Your task to perform on an android device: toggle priority inbox in the gmail app Image 0: 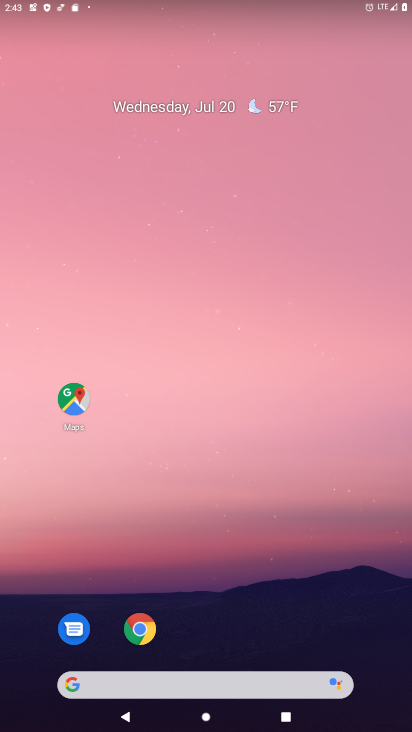
Step 0: drag from (372, 644) to (317, 30)
Your task to perform on an android device: toggle priority inbox in the gmail app Image 1: 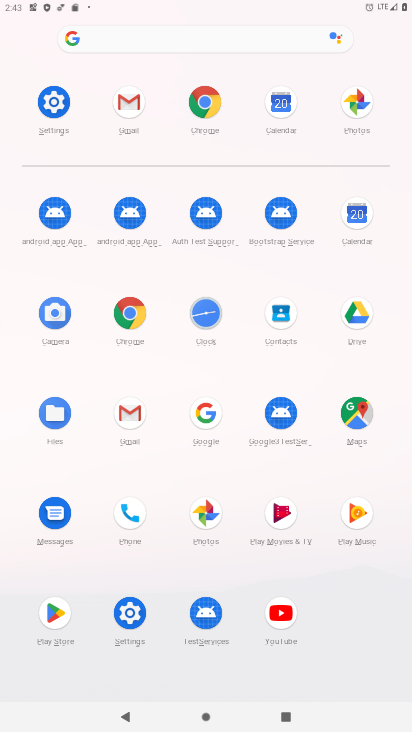
Step 1: click (129, 412)
Your task to perform on an android device: toggle priority inbox in the gmail app Image 2: 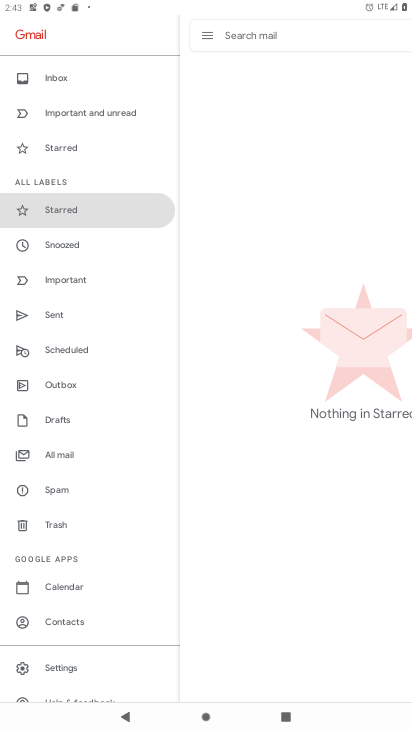
Step 2: click (60, 664)
Your task to perform on an android device: toggle priority inbox in the gmail app Image 3: 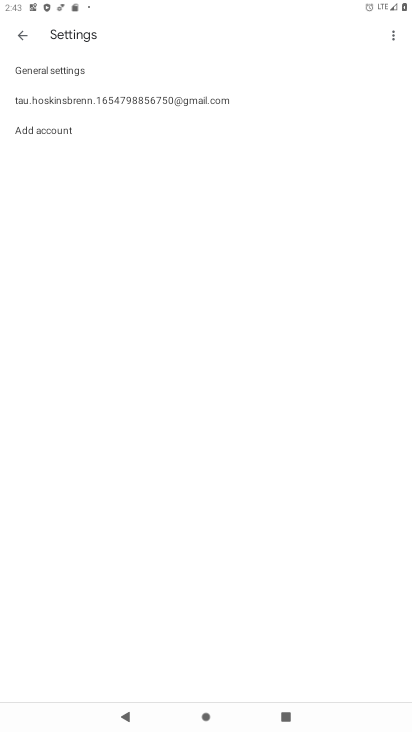
Step 3: click (72, 101)
Your task to perform on an android device: toggle priority inbox in the gmail app Image 4: 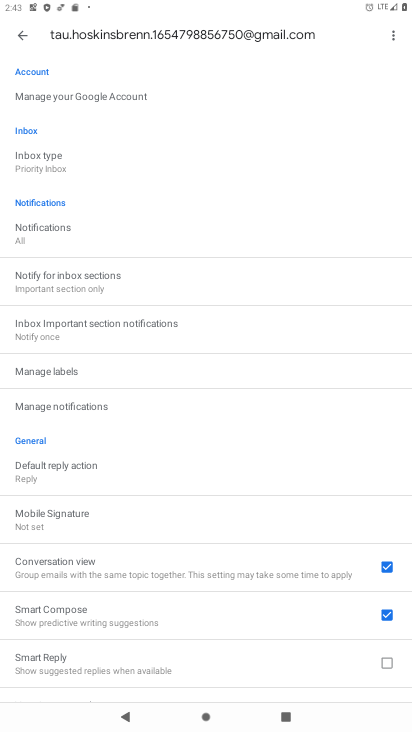
Step 4: click (34, 160)
Your task to perform on an android device: toggle priority inbox in the gmail app Image 5: 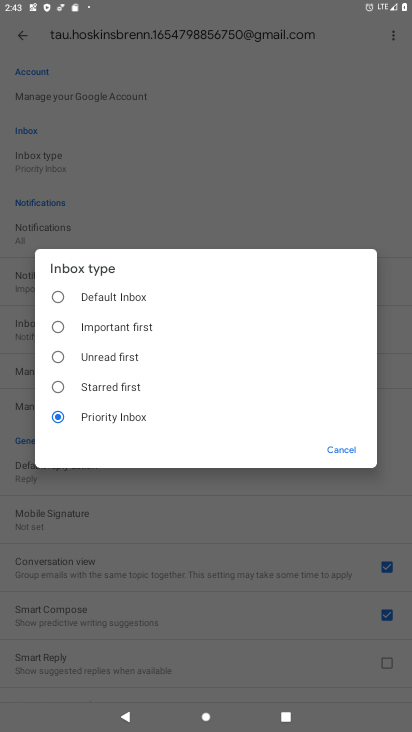
Step 5: click (53, 300)
Your task to perform on an android device: toggle priority inbox in the gmail app Image 6: 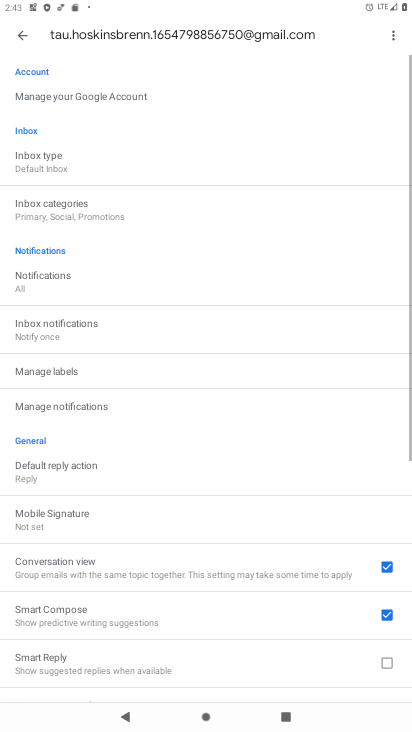
Step 6: task complete